Your task to perform on an android device: Open my contact list Image 0: 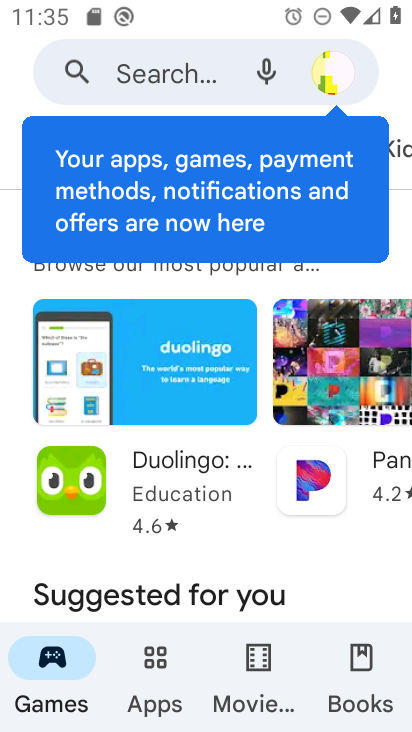
Step 0: press back button
Your task to perform on an android device: Open my contact list Image 1: 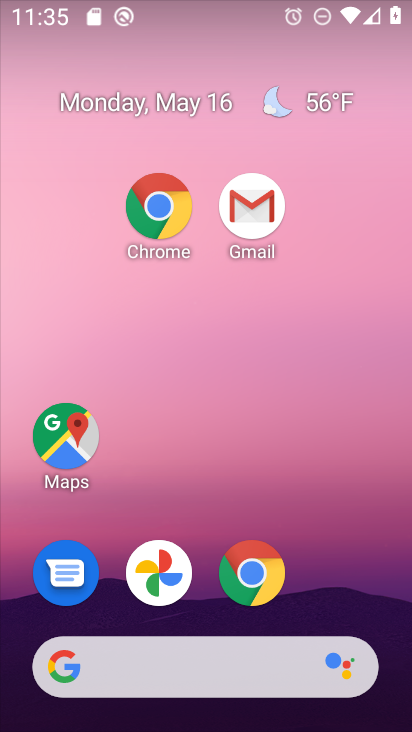
Step 1: drag from (332, 629) to (378, 143)
Your task to perform on an android device: Open my contact list Image 2: 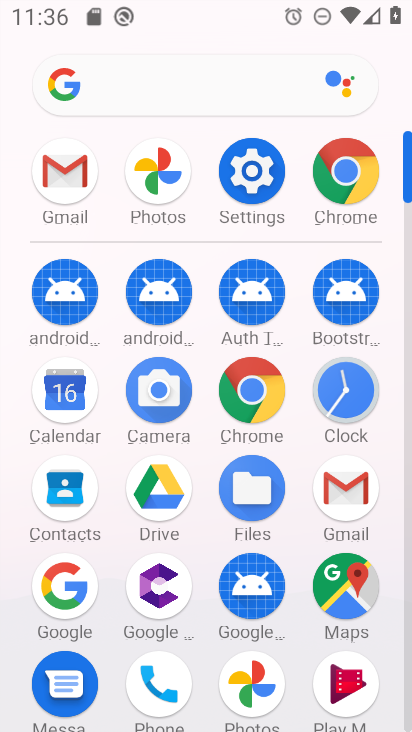
Step 2: click (54, 494)
Your task to perform on an android device: Open my contact list Image 3: 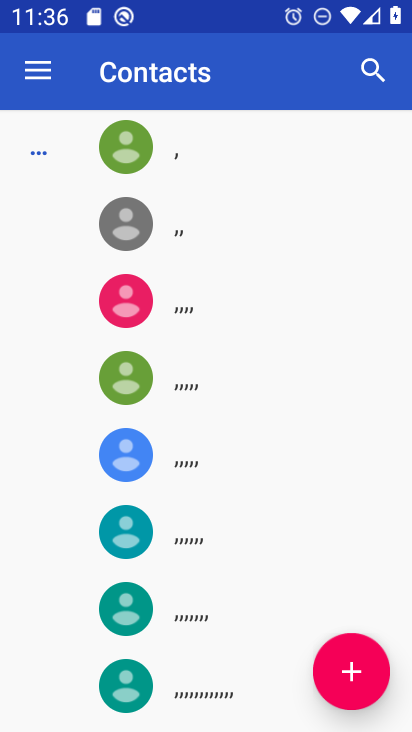
Step 3: task complete